Your task to perform on an android device: Open wifi settings Image 0: 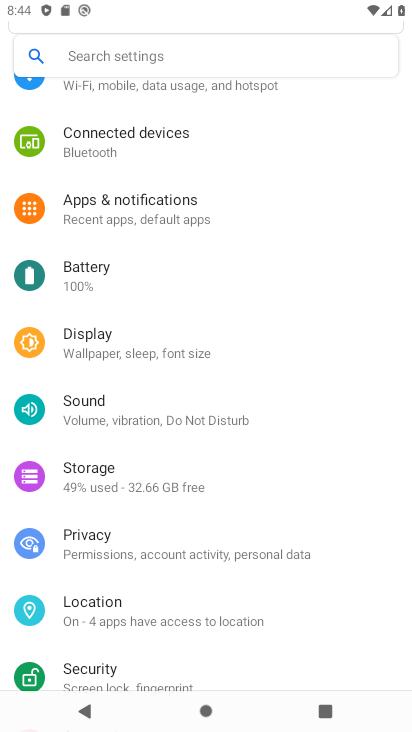
Step 0: drag from (143, 236) to (77, 492)
Your task to perform on an android device: Open wifi settings Image 1: 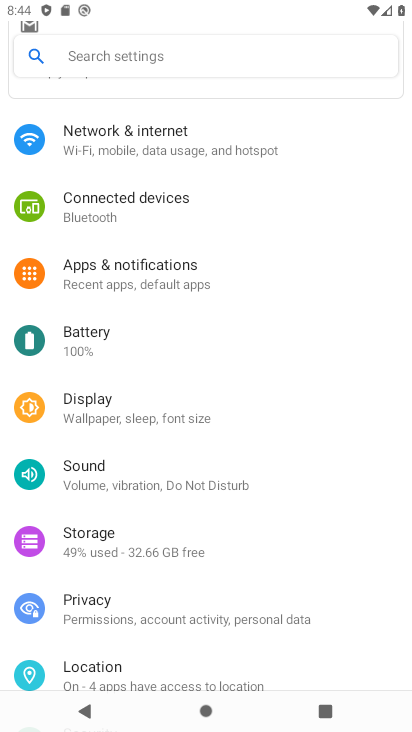
Step 1: drag from (88, 147) to (175, 470)
Your task to perform on an android device: Open wifi settings Image 2: 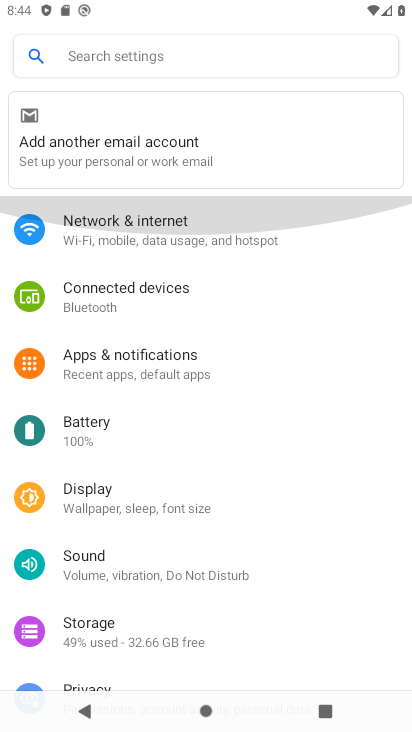
Step 2: drag from (158, 223) to (232, 613)
Your task to perform on an android device: Open wifi settings Image 3: 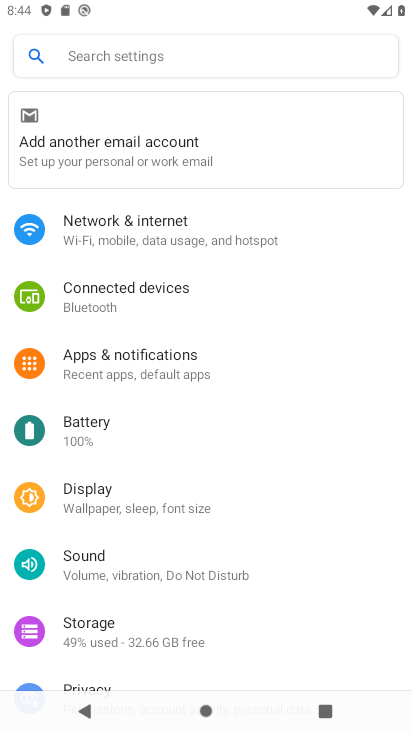
Step 3: click (133, 228)
Your task to perform on an android device: Open wifi settings Image 4: 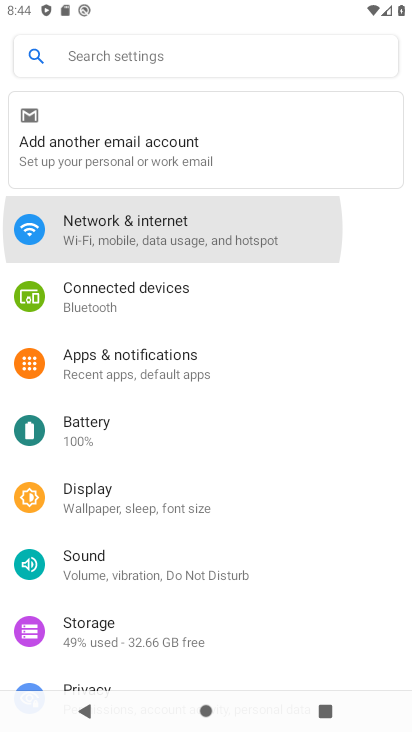
Step 4: click (133, 233)
Your task to perform on an android device: Open wifi settings Image 5: 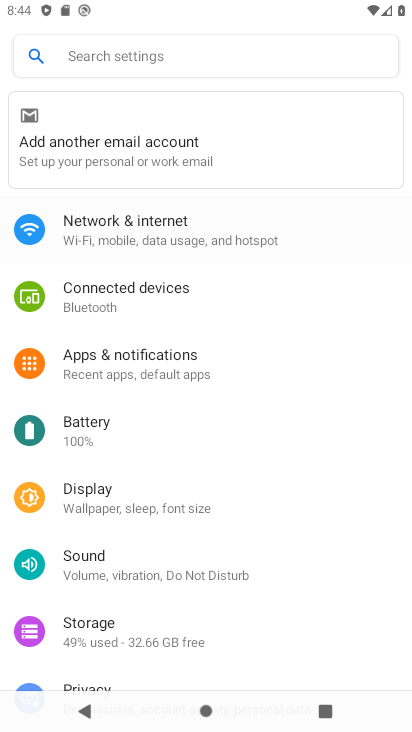
Step 5: click (133, 234)
Your task to perform on an android device: Open wifi settings Image 6: 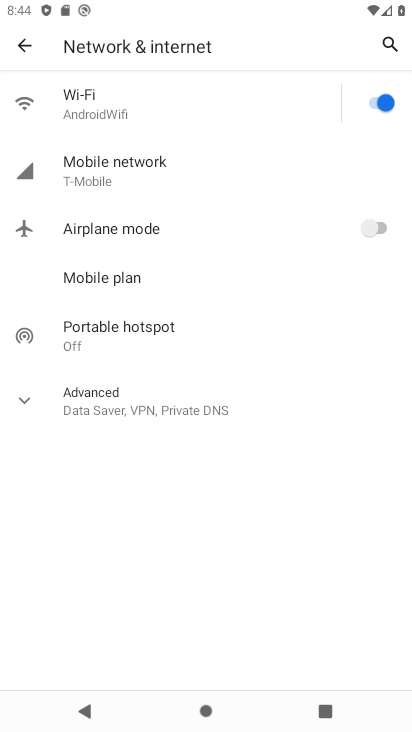
Step 6: task complete